Your task to perform on an android device: turn off smart reply in the gmail app Image 0: 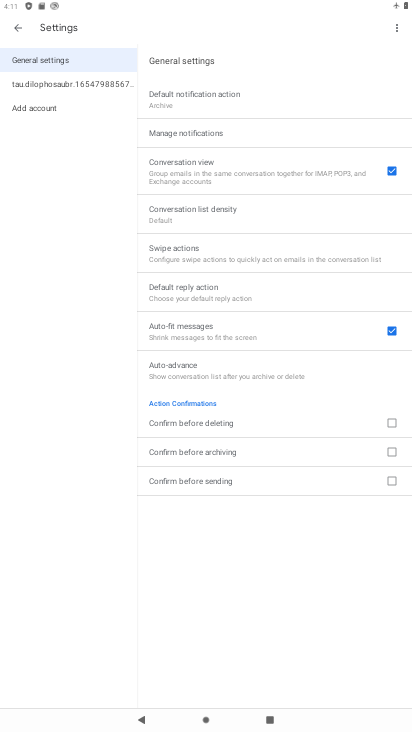
Step 0: press home button
Your task to perform on an android device: turn off smart reply in the gmail app Image 1: 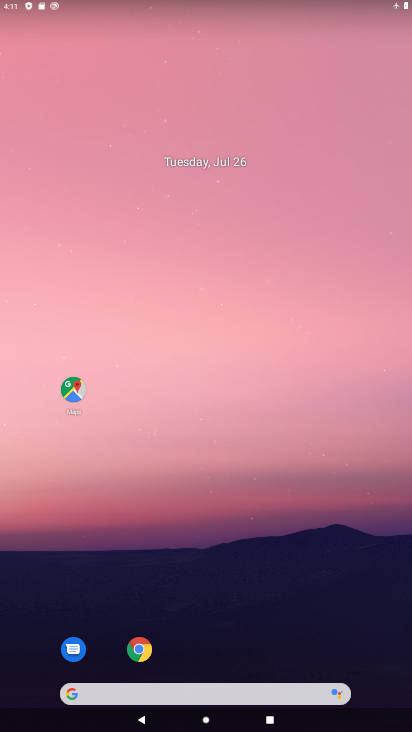
Step 1: drag from (230, 632) to (218, 407)
Your task to perform on an android device: turn off smart reply in the gmail app Image 2: 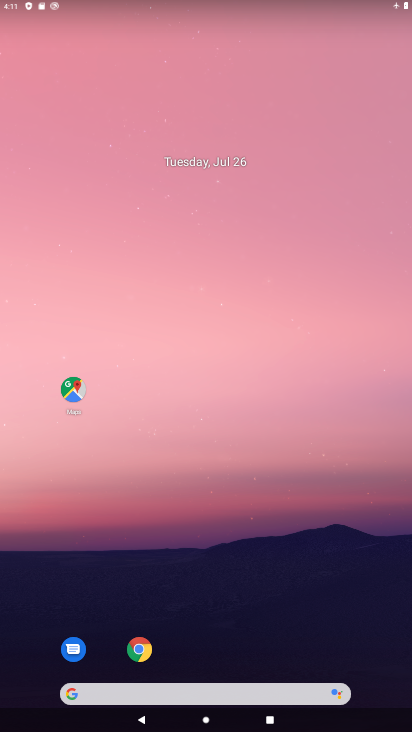
Step 2: drag from (211, 633) to (245, 225)
Your task to perform on an android device: turn off smart reply in the gmail app Image 3: 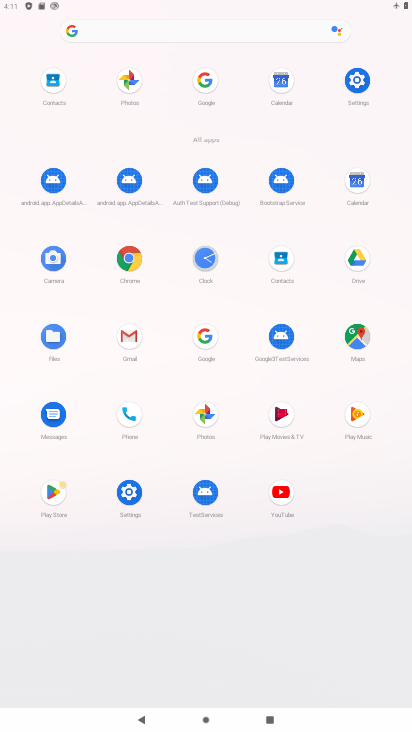
Step 3: click (140, 342)
Your task to perform on an android device: turn off smart reply in the gmail app Image 4: 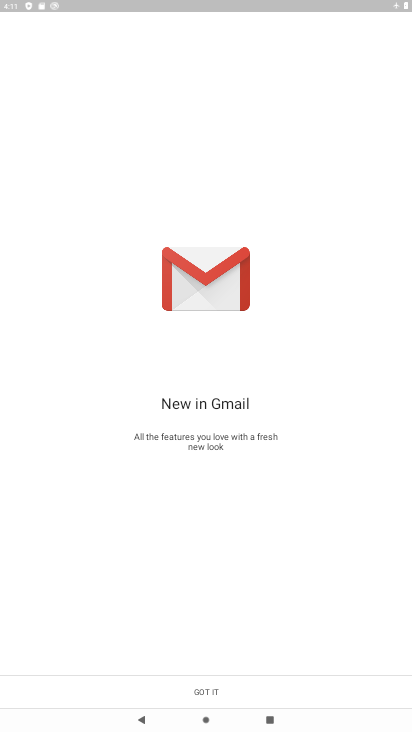
Step 4: click (254, 687)
Your task to perform on an android device: turn off smart reply in the gmail app Image 5: 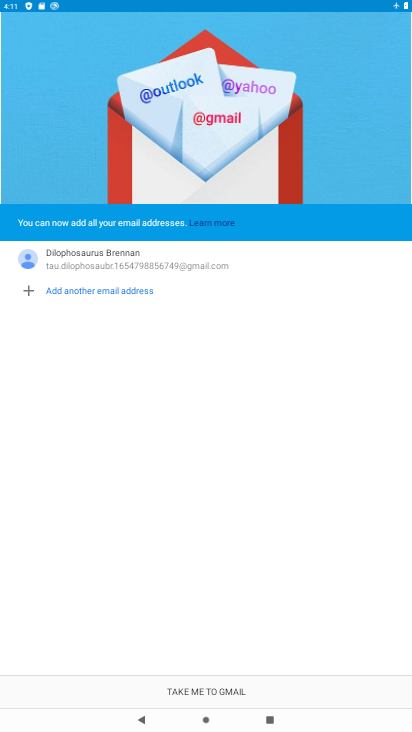
Step 5: click (256, 681)
Your task to perform on an android device: turn off smart reply in the gmail app Image 6: 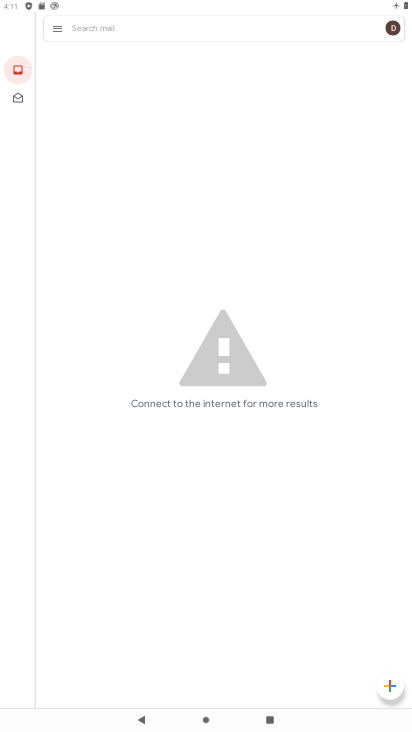
Step 6: click (58, 30)
Your task to perform on an android device: turn off smart reply in the gmail app Image 7: 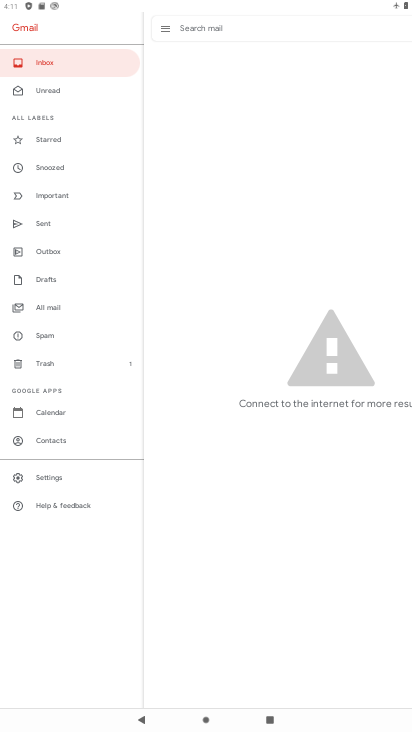
Step 7: click (62, 480)
Your task to perform on an android device: turn off smart reply in the gmail app Image 8: 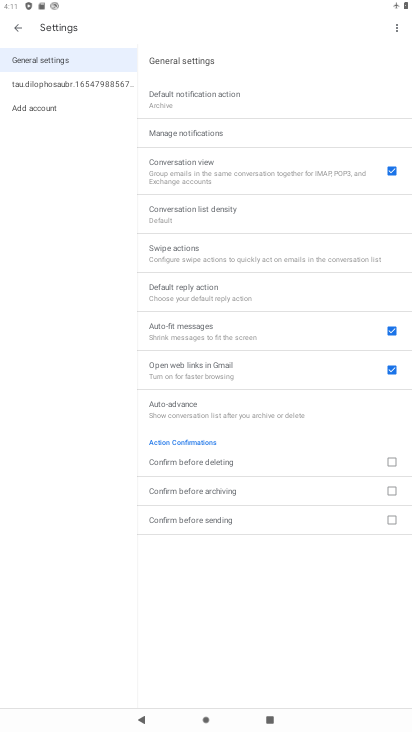
Step 8: click (49, 91)
Your task to perform on an android device: turn off smart reply in the gmail app Image 9: 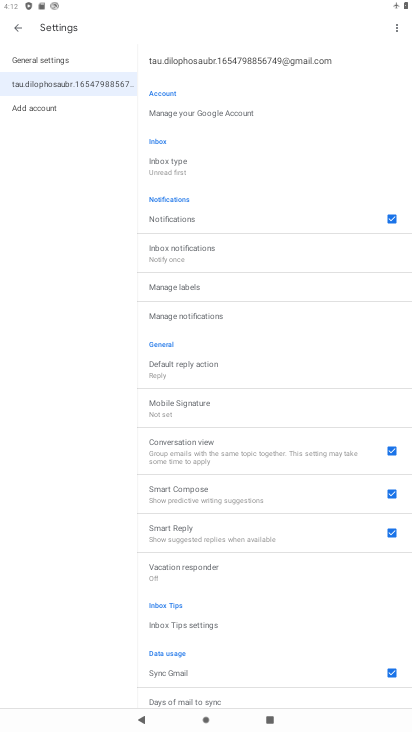
Step 9: click (390, 499)
Your task to perform on an android device: turn off smart reply in the gmail app Image 10: 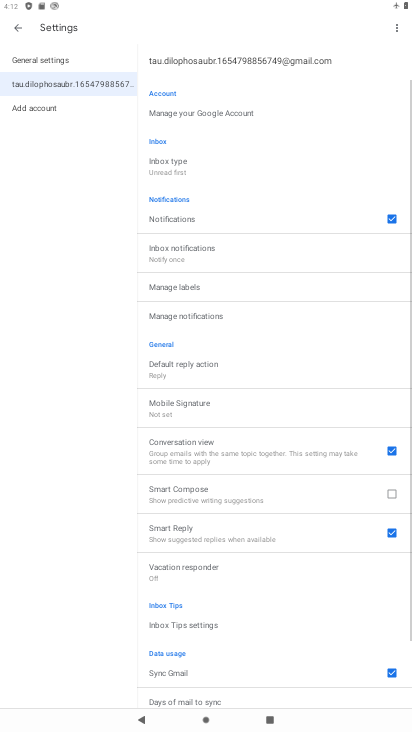
Step 10: click (391, 490)
Your task to perform on an android device: turn off smart reply in the gmail app Image 11: 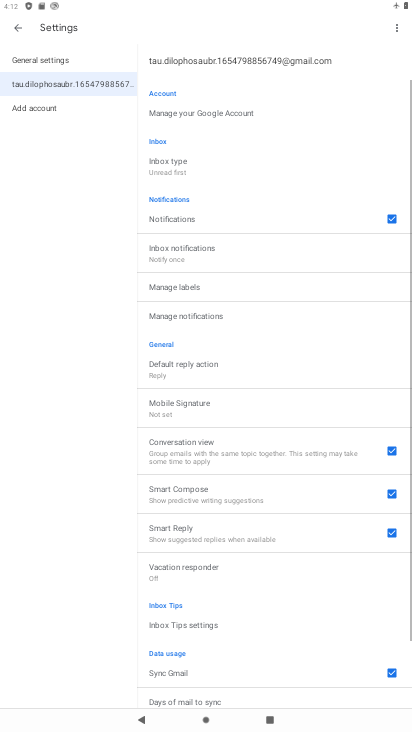
Step 11: click (394, 537)
Your task to perform on an android device: turn off smart reply in the gmail app Image 12: 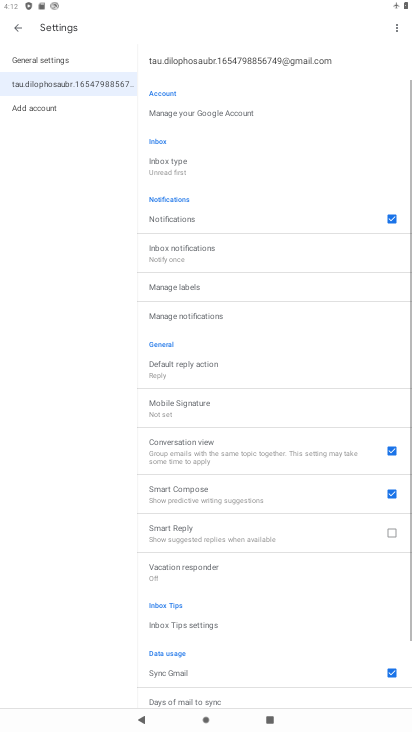
Step 12: task complete